Your task to perform on an android device: What's the latest news in space technology? Image 0: 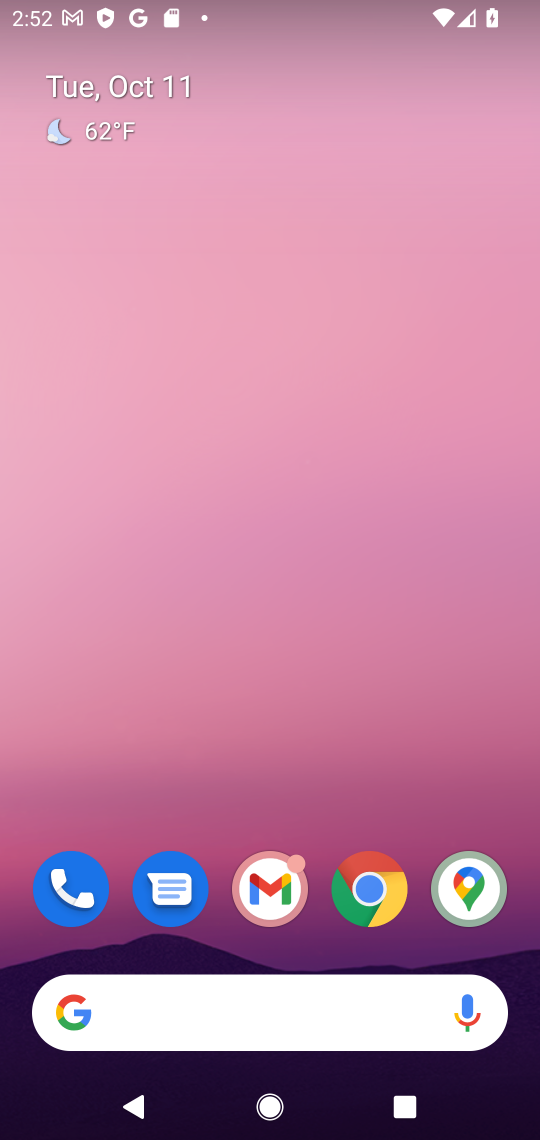
Step 0: drag from (212, 797) to (269, 253)
Your task to perform on an android device: What's the latest news in space technology? Image 1: 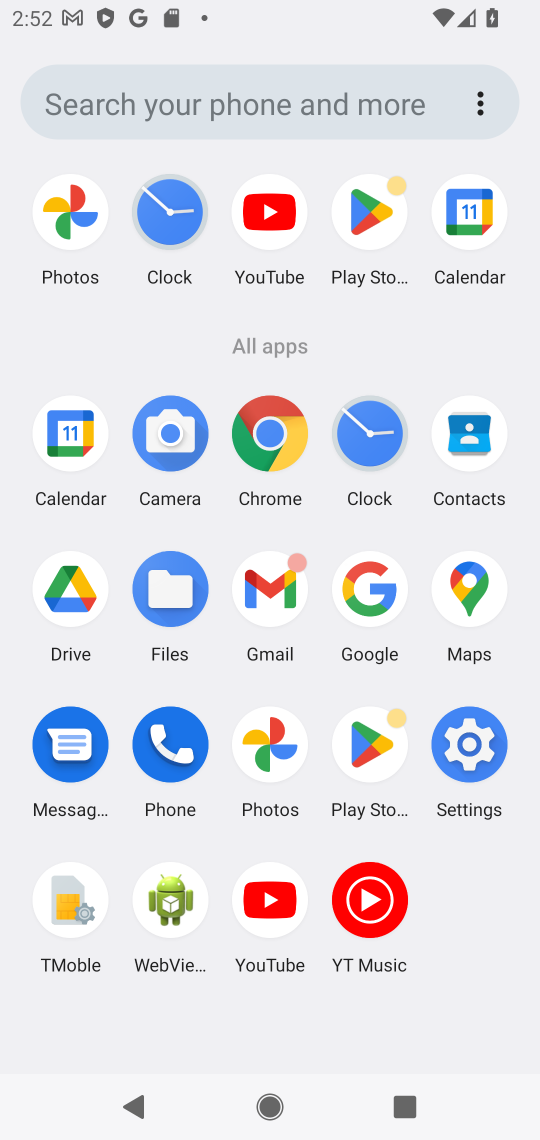
Step 1: click (362, 588)
Your task to perform on an android device: What's the latest news in space technology? Image 2: 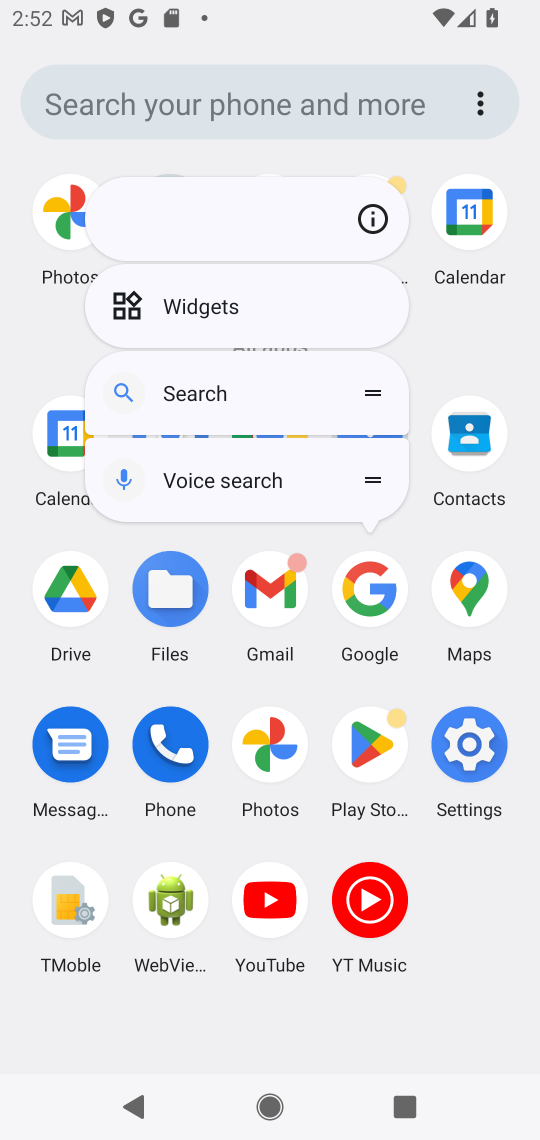
Step 2: click (376, 577)
Your task to perform on an android device: What's the latest news in space technology? Image 3: 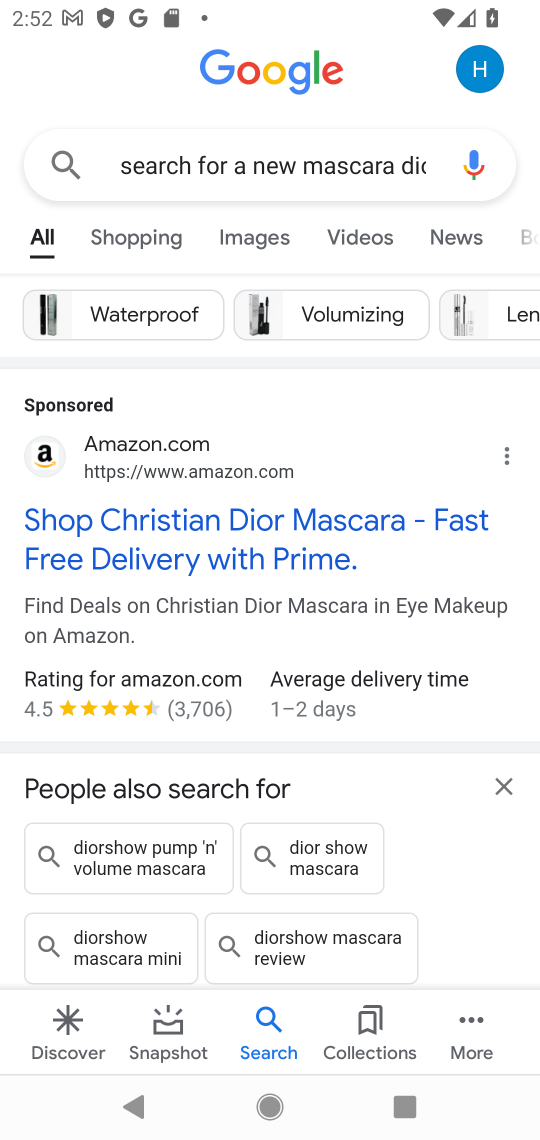
Step 3: click (239, 158)
Your task to perform on an android device: What's the latest news in space technology? Image 4: 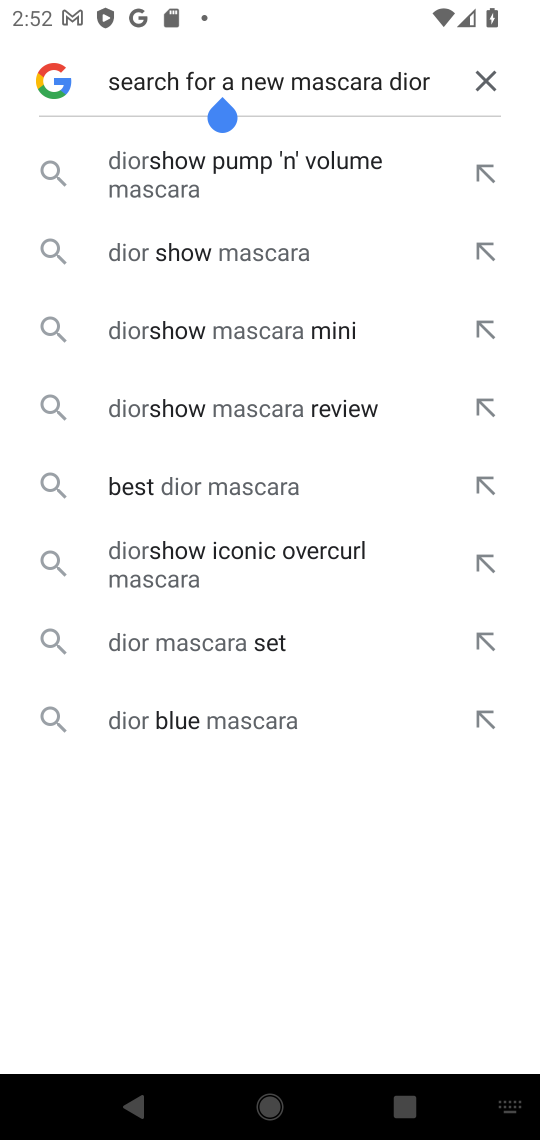
Step 4: click (479, 76)
Your task to perform on an android device: What's the latest news in space technology? Image 5: 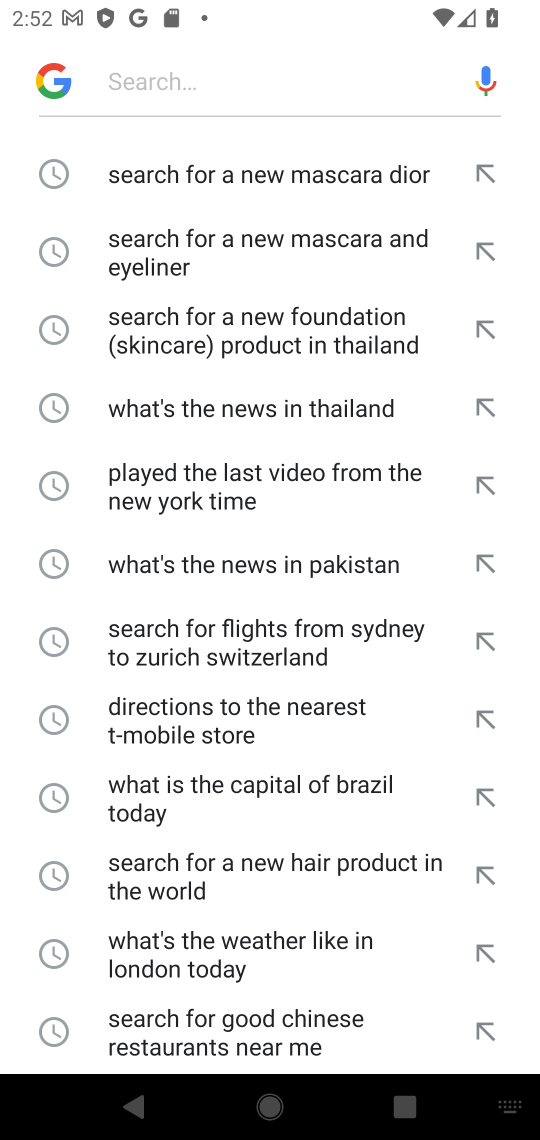
Step 5: click (321, 67)
Your task to perform on an android device: What's the latest news in space technology? Image 6: 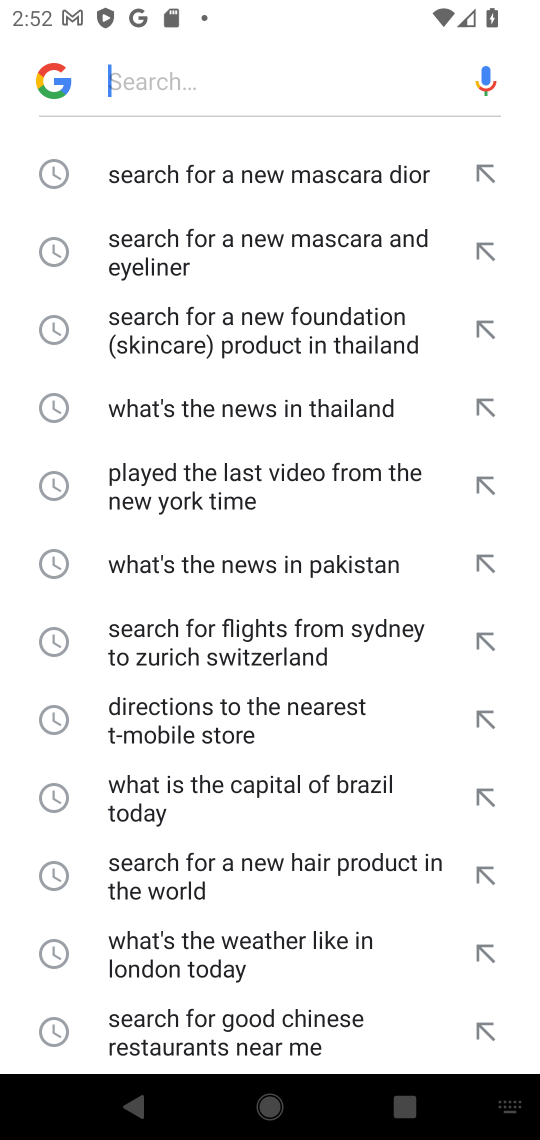
Step 6: type "What's the latest news in space technology "
Your task to perform on an android device: What's the latest news in space technology? Image 7: 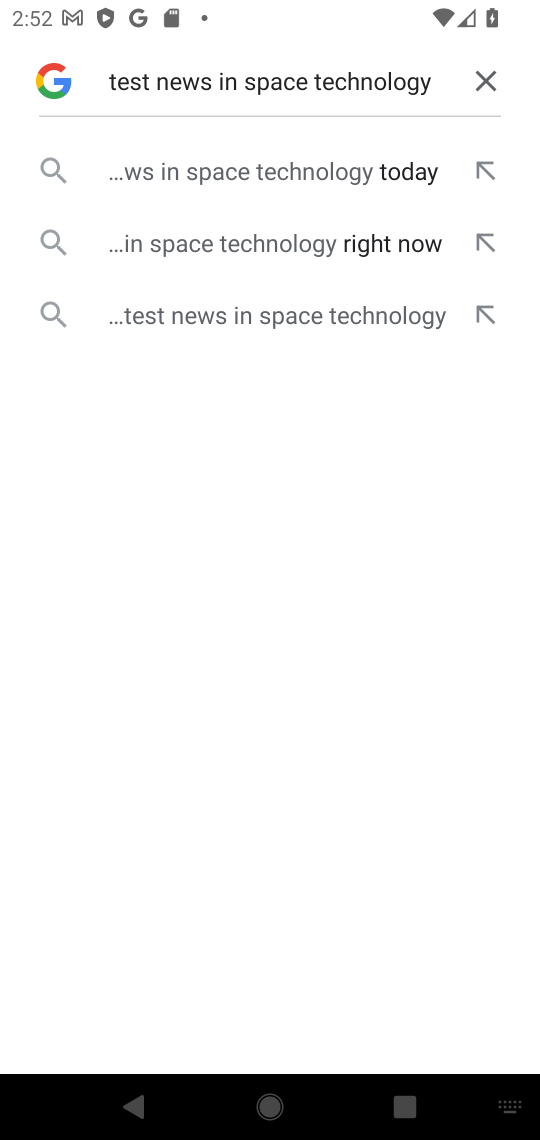
Step 7: click (177, 162)
Your task to perform on an android device: What's the latest news in space technology? Image 8: 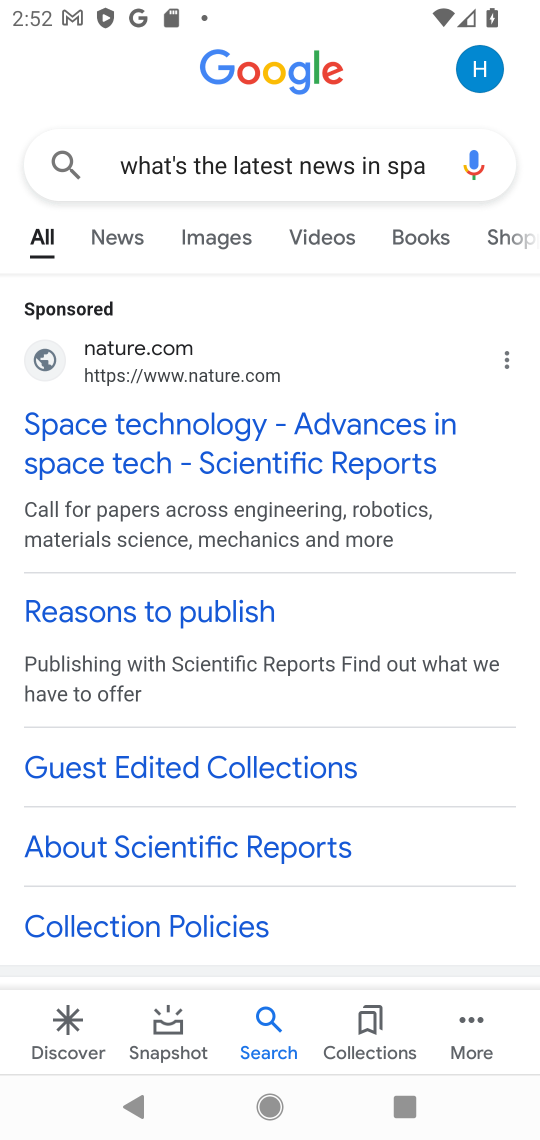
Step 8: click (217, 447)
Your task to perform on an android device: What's the latest news in space technology? Image 9: 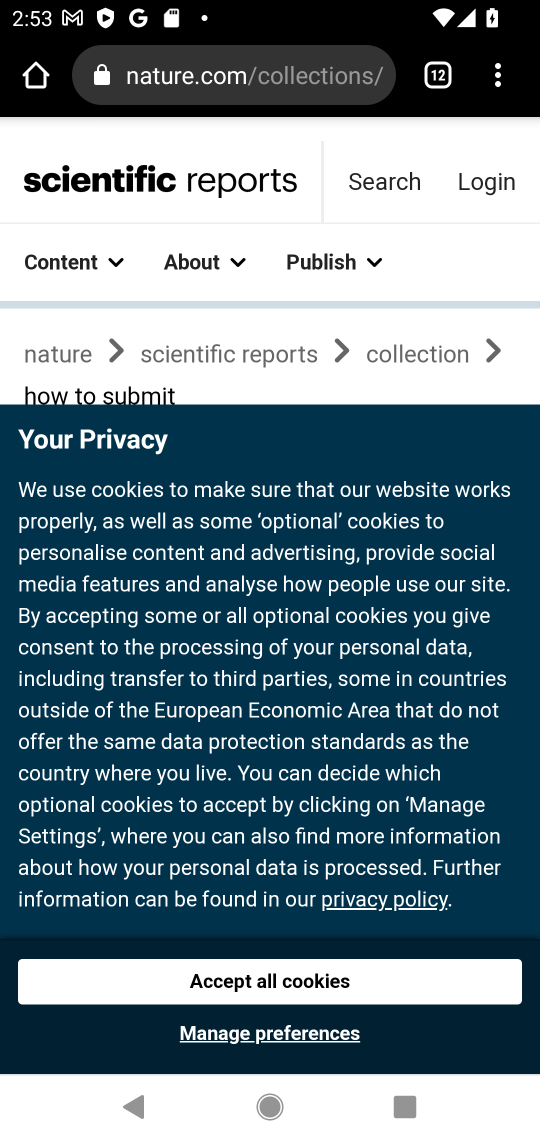
Step 9: click (340, 976)
Your task to perform on an android device: What's the latest news in space technology? Image 10: 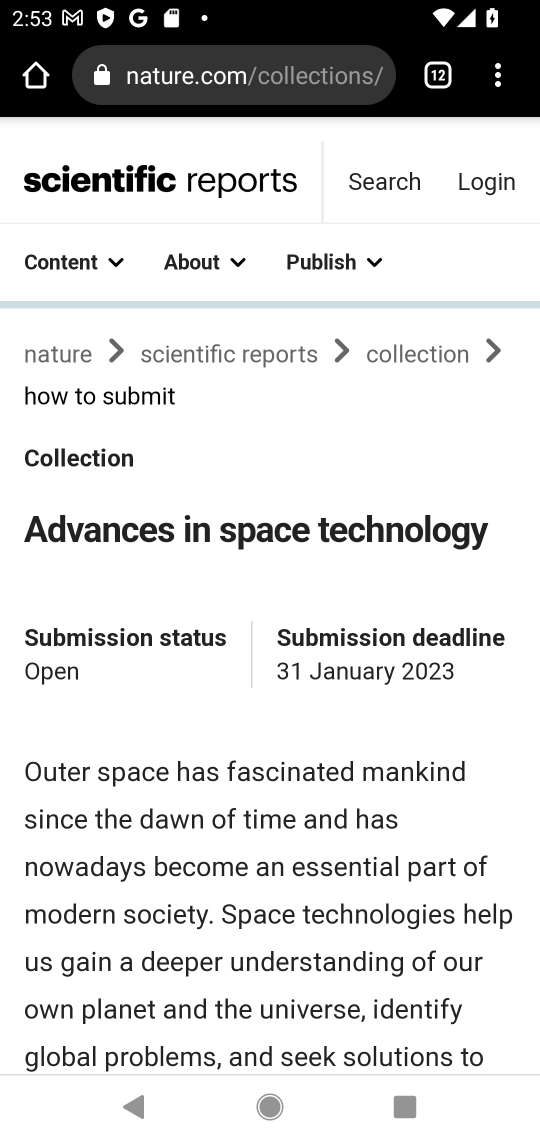
Step 10: task complete